Your task to perform on an android device: Show me the alarms in the clock app Image 0: 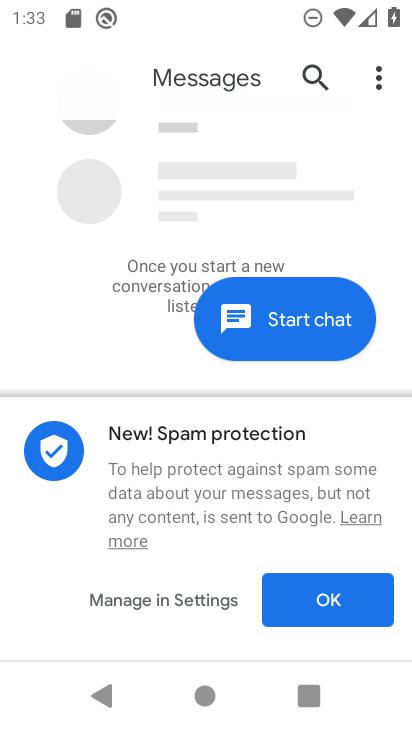
Step 0: press home button
Your task to perform on an android device: Show me the alarms in the clock app Image 1: 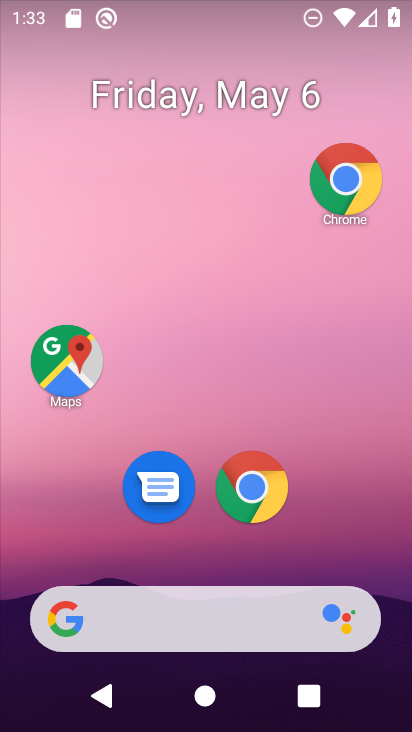
Step 1: drag from (312, 523) to (302, 9)
Your task to perform on an android device: Show me the alarms in the clock app Image 2: 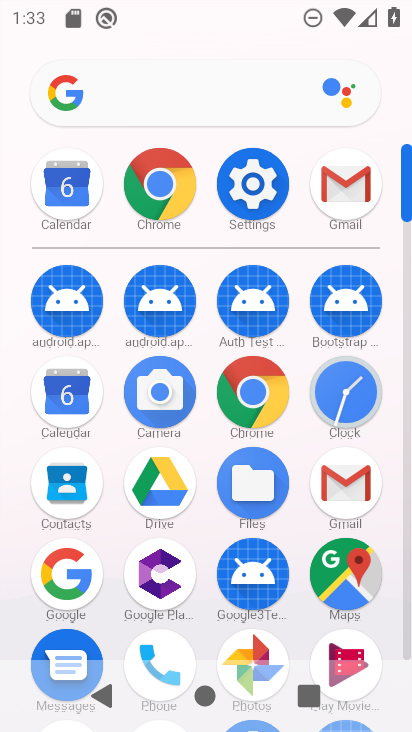
Step 2: click (340, 404)
Your task to perform on an android device: Show me the alarms in the clock app Image 3: 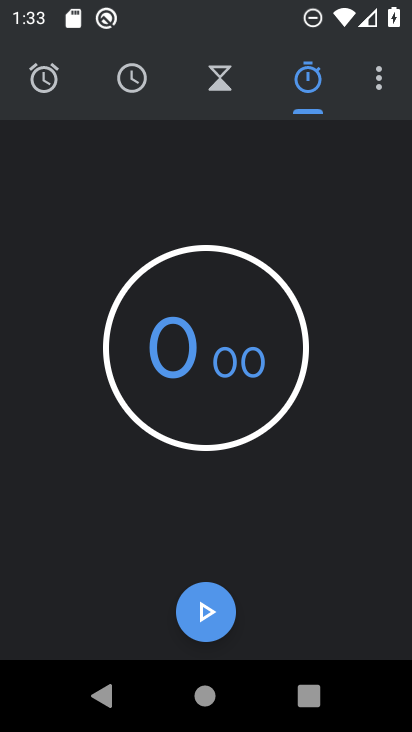
Step 3: click (45, 97)
Your task to perform on an android device: Show me the alarms in the clock app Image 4: 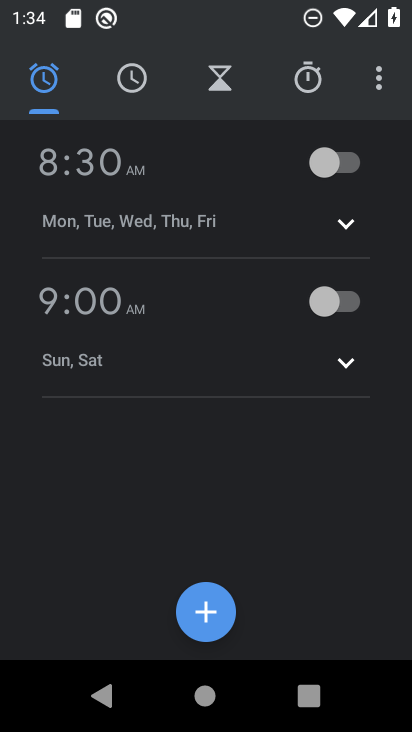
Step 4: task complete